Your task to perform on an android device: make emails show in primary in the gmail app Image 0: 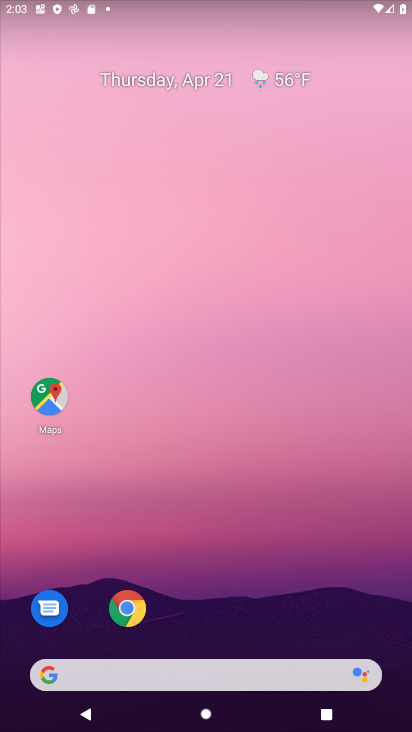
Step 0: drag from (227, 577) to (238, 109)
Your task to perform on an android device: make emails show in primary in the gmail app Image 1: 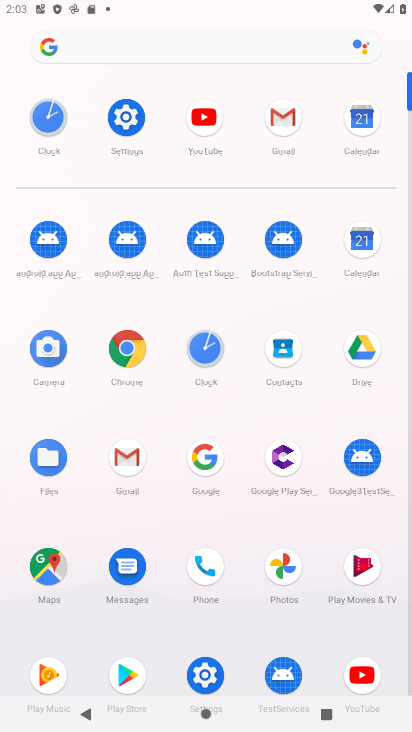
Step 1: click (117, 463)
Your task to perform on an android device: make emails show in primary in the gmail app Image 2: 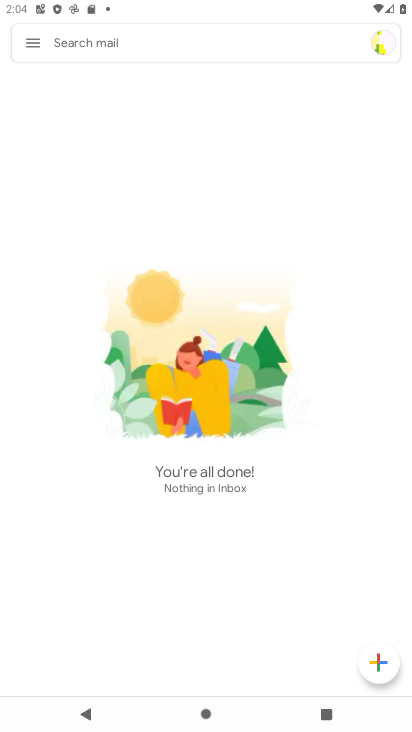
Step 2: click (32, 41)
Your task to perform on an android device: make emails show in primary in the gmail app Image 3: 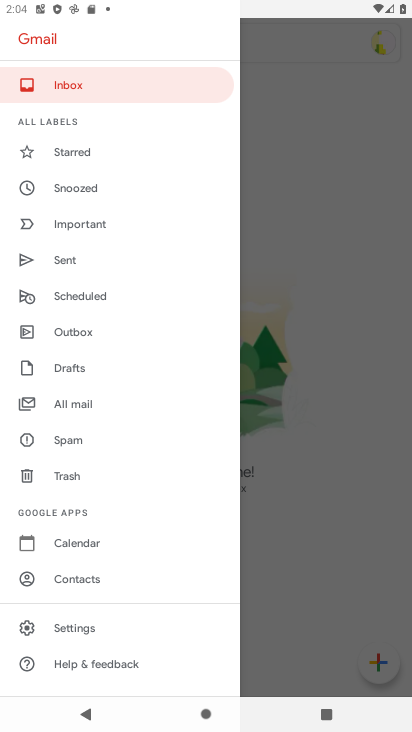
Step 3: click (66, 620)
Your task to perform on an android device: make emails show in primary in the gmail app Image 4: 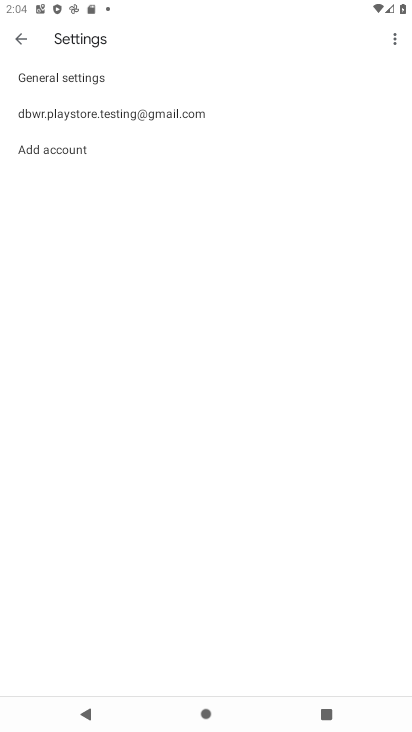
Step 4: click (94, 107)
Your task to perform on an android device: make emails show in primary in the gmail app Image 5: 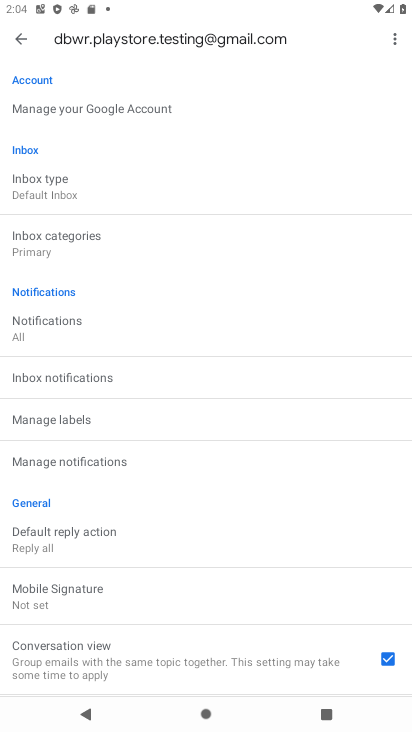
Step 5: click (54, 250)
Your task to perform on an android device: make emails show in primary in the gmail app Image 6: 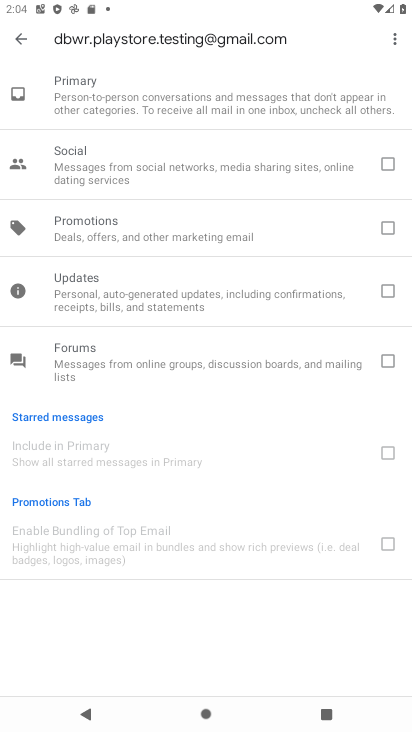
Step 6: task complete